Your task to perform on an android device: change the clock display to digital Image 0: 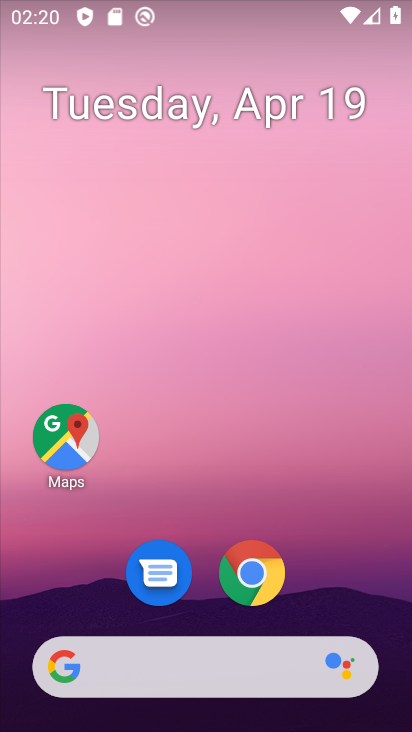
Step 0: drag from (381, 551) to (385, 0)
Your task to perform on an android device: change the clock display to digital Image 1: 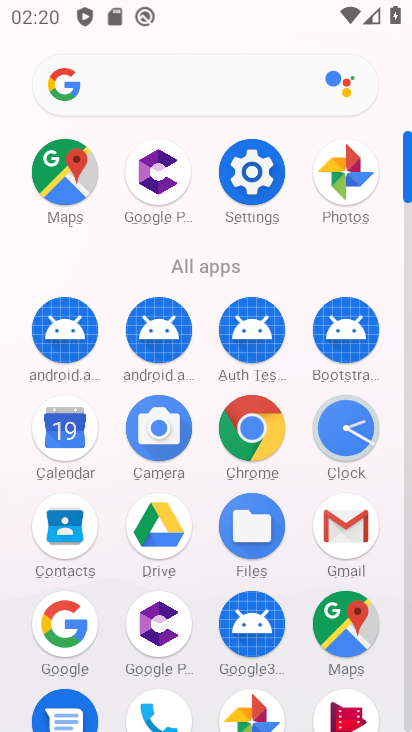
Step 1: click (344, 420)
Your task to perform on an android device: change the clock display to digital Image 2: 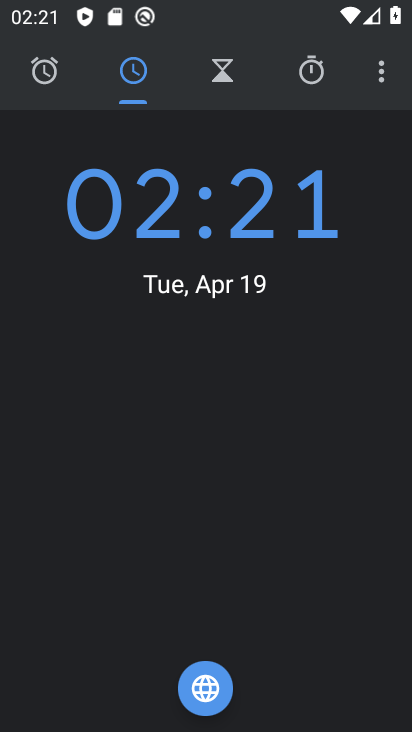
Step 2: click (382, 85)
Your task to perform on an android device: change the clock display to digital Image 3: 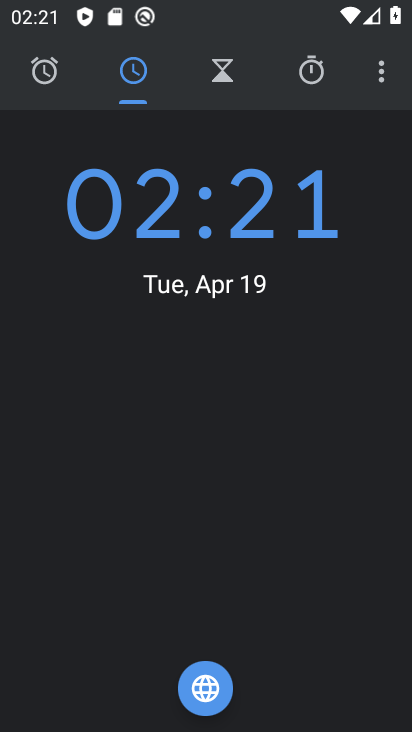
Step 3: click (384, 72)
Your task to perform on an android device: change the clock display to digital Image 4: 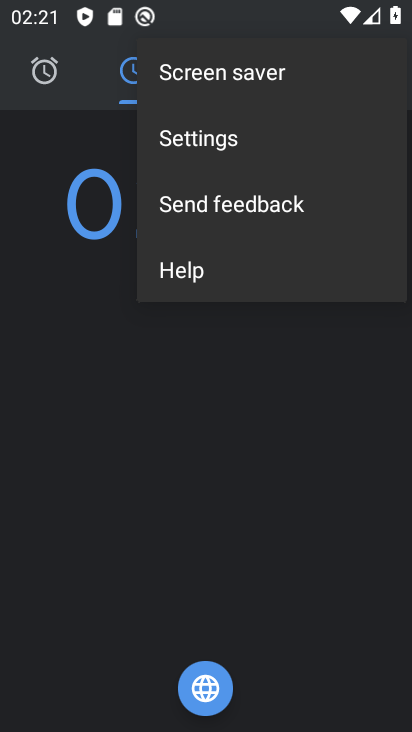
Step 4: click (191, 141)
Your task to perform on an android device: change the clock display to digital Image 5: 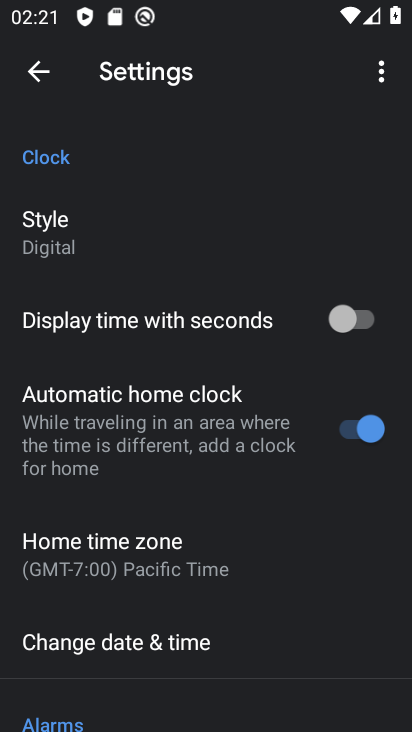
Step 5: task complete